Your task to perform on an android device: toggle improve location accuracy Image 0: 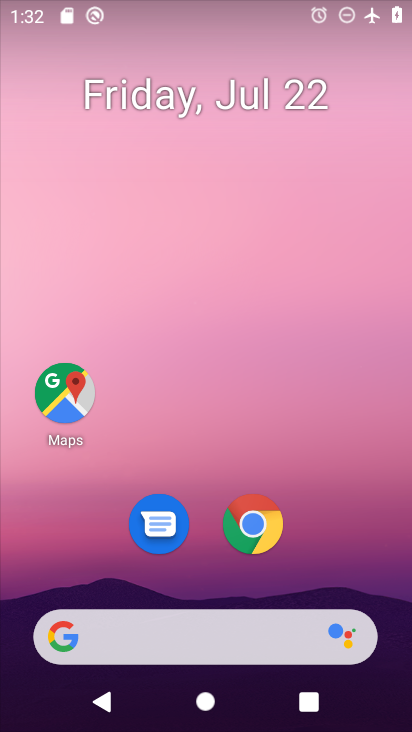
Step 0: drag from (343, 534) to (354, 124)
Your task to perform on an android device: toggle improve location accuracy Image 1: 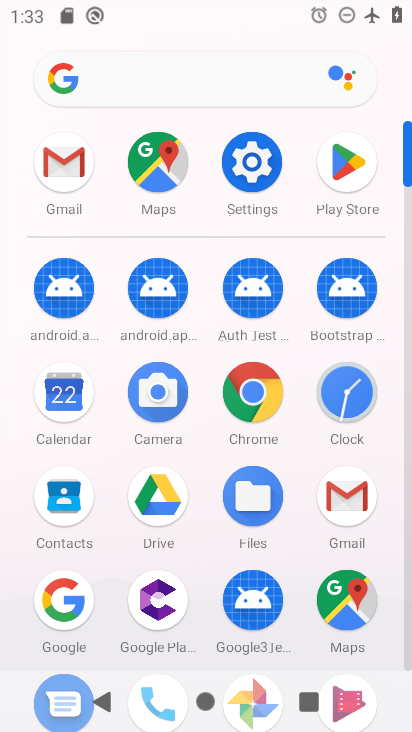
Step 1: drag from (247, 574) to (252, 426)
Your task to perform on an android device: toggle improve location accuracy Image 2: 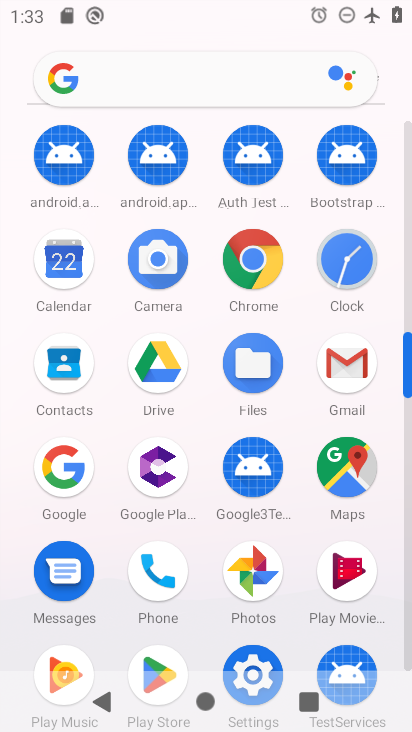
Step 2: drag from (256, 232) to (240, 462)
Your task to perform on an android device: toggle improve location accuracy Image 3: 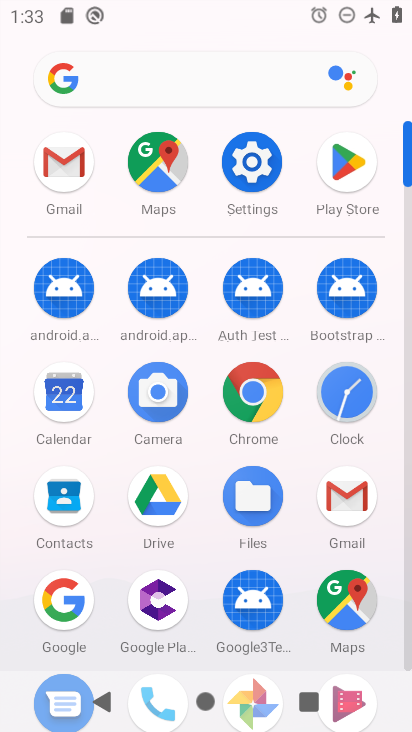
Step 3: click (254, 164)
Your task to perform on an android device: toggle improve location accuracy Image 4: 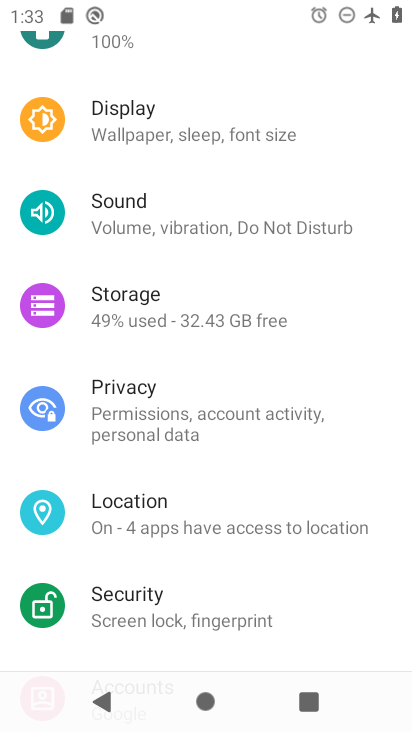
Step 4: click (247, 516)
Your task to perform on an android device: toggle improve location accuracy Image 5: 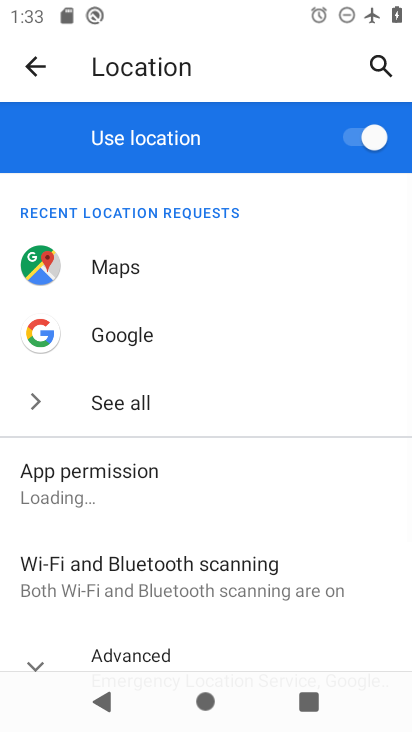
Step 5: drag from (229, 538) to (250, 272)
Your task to perform on an android device: toggle improve location accuracy Image 6: 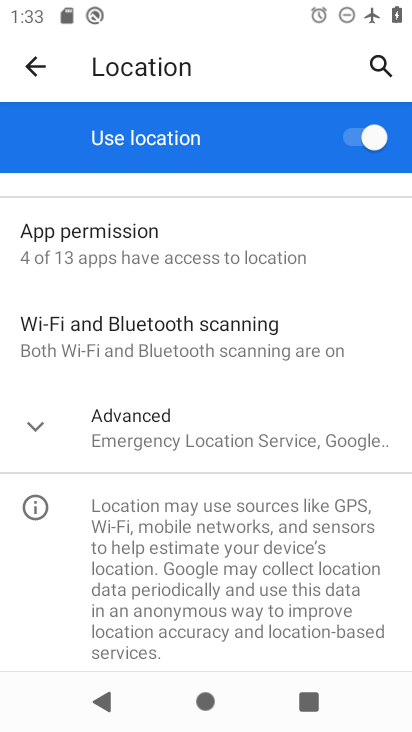
Step 6: click (36, 417)
Your task to perform on an android device: toggle improve location accuracy Image 7: 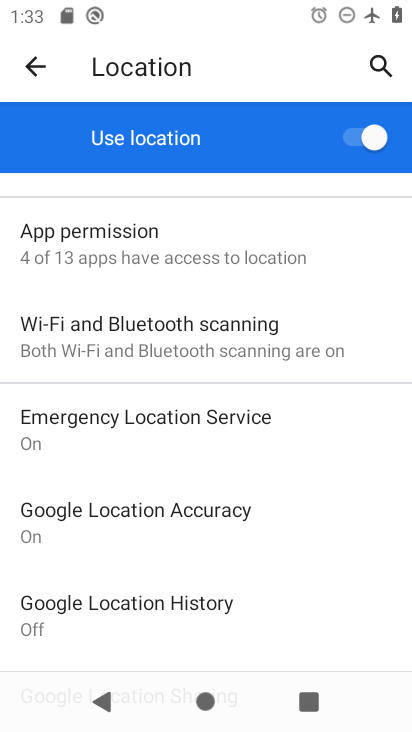
Step 7: click (213, 518)
Your task to perform on an android device: toggle improve location accuracy Image 8: 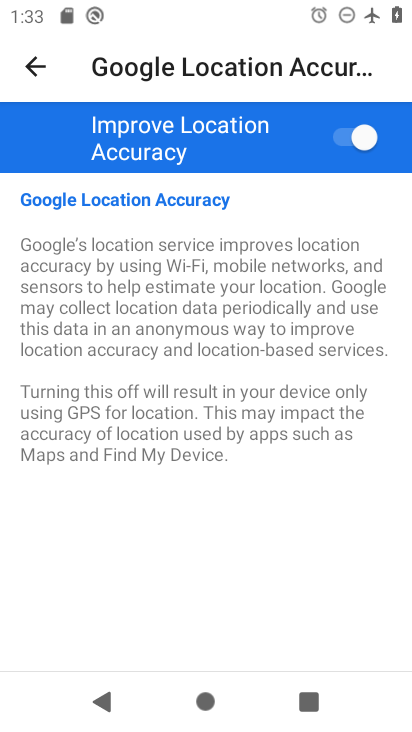
Step 8: click (356, 139)
Your task to perform on an android device: toggle improve location accuracy Image 9: 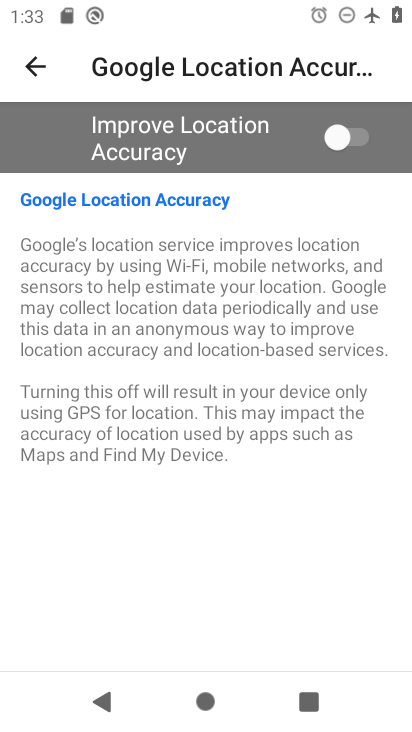
Step 9: task complete